Your task to perform on an android device: Show me popular videos on Youtube Image 0: 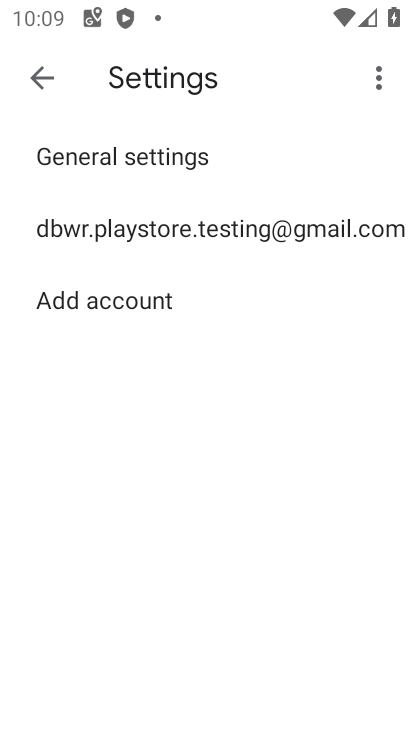
Step 0: press home button
Your task to perform on an android device: Show me popular videos on Youtube Image 1: 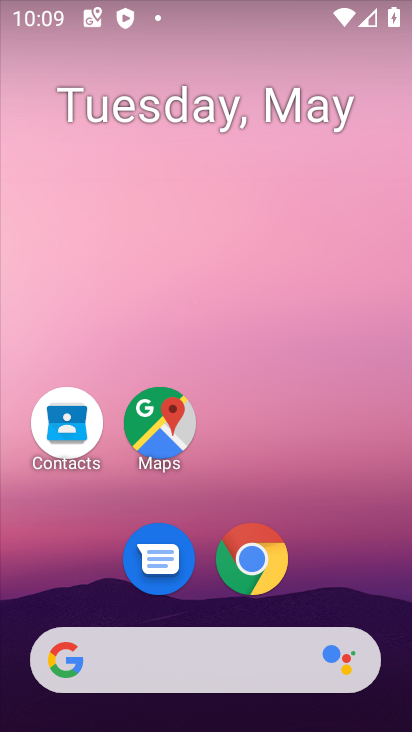
Step 1: drag from (371, 578) to (365, 114)
Your task to perform on an android device: Show me popular videos on Youtube Image 2: 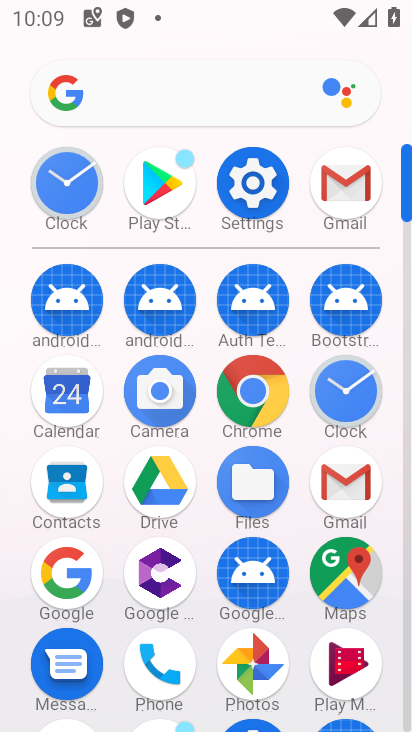
Step 2: click (403, 726)
Your task to perform on an android device: Show me popular videos on Youtube Image 3: 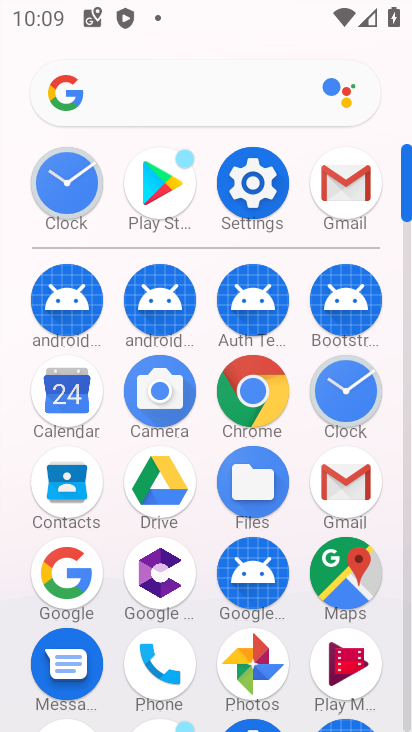
Step 3: click (403, 726)
Your task to perform on an android device: Show me popular videos on Youtube Image 4: 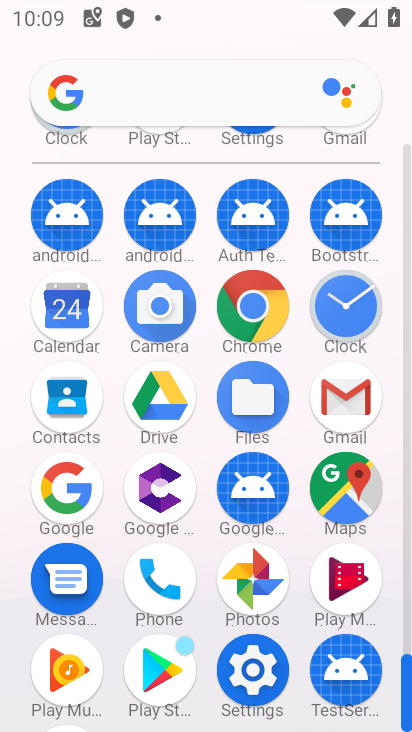
Step 4: click (402, 697)
Your task to perform on an android device: Show me popular videos on Youtube Image 5: 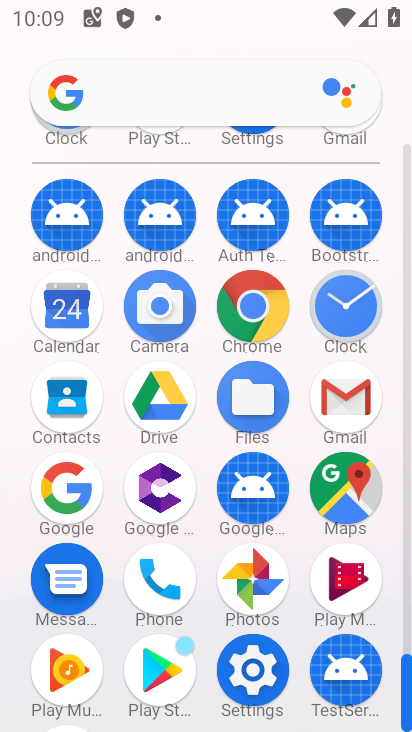
Step 5: drag from (402, 697) to (222, 719)
Your task to perform on an android device: Show me popular videos on Youtube Image 6: 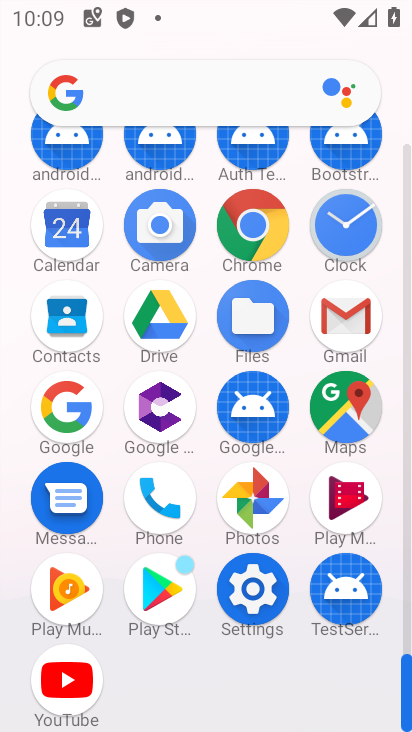
Step 6: click (69, 647)
Your task to perform on an android device: Show me popular videos on Youtube Image 7: 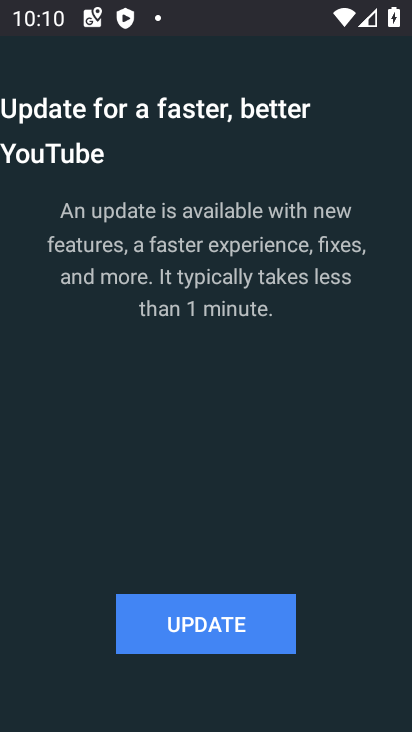
Step 7: click (251, 618)
Your task to perform on an android device: Show me popular videos on Youtube Image 8: 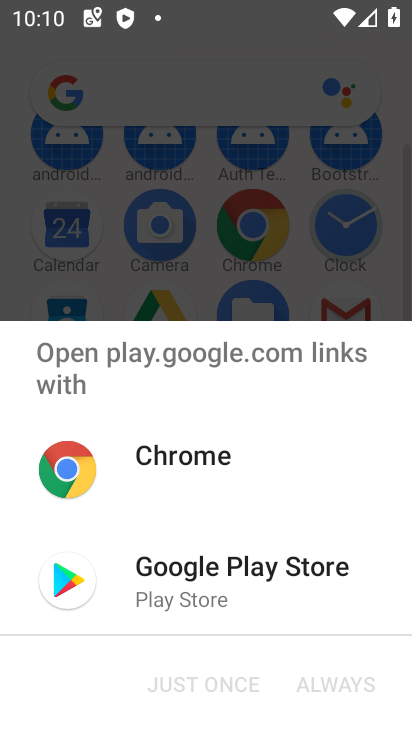
Step 8: click (149, 677)
Your task to perform on an android device: Show me popular videos on Youtube Image 9: 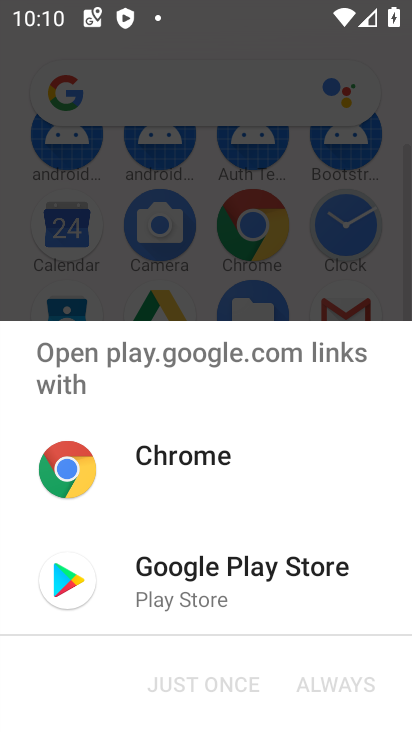
Step 9: click (83, 601)
Your task to perform on an android device: Show me popular videos on Youtube Image 10: 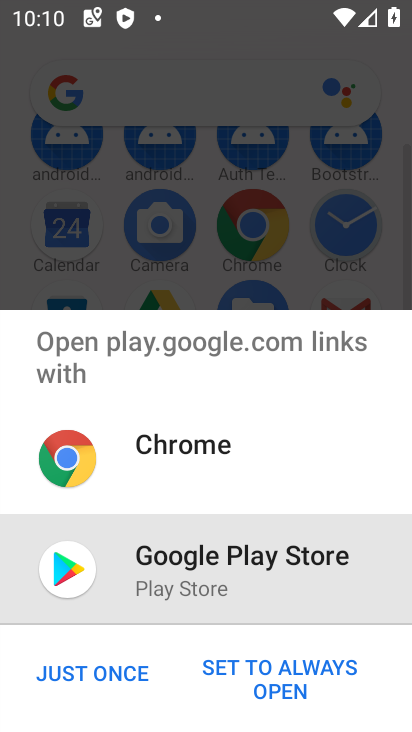
Step 10: click (33, 680)
Your task to perform on an android device: Show me popular videos on Youtube Image 11: 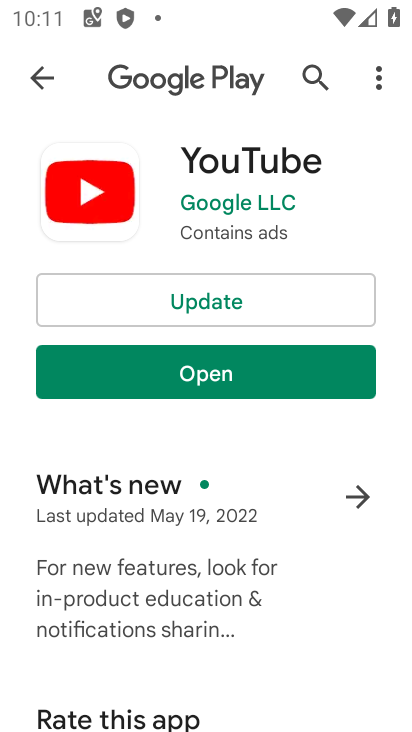
Step 11: click (234, 283)
Your task to perform on an android device: Show me popular videos on Youtube Image 12: 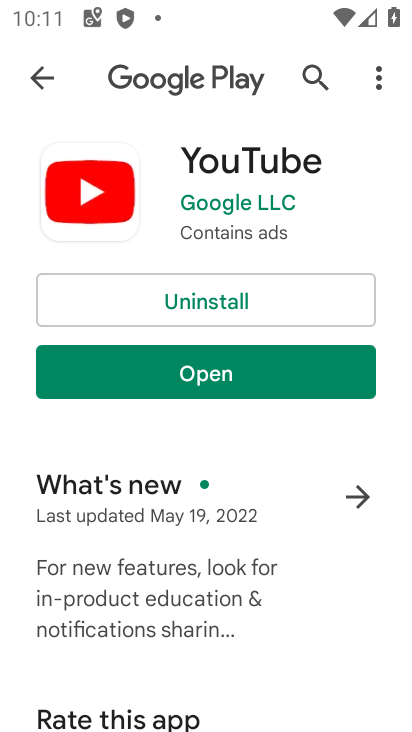
Step 12: click (188, 369)
Your task to perform on an android device: Show me popular videos on Youtube Image 13: 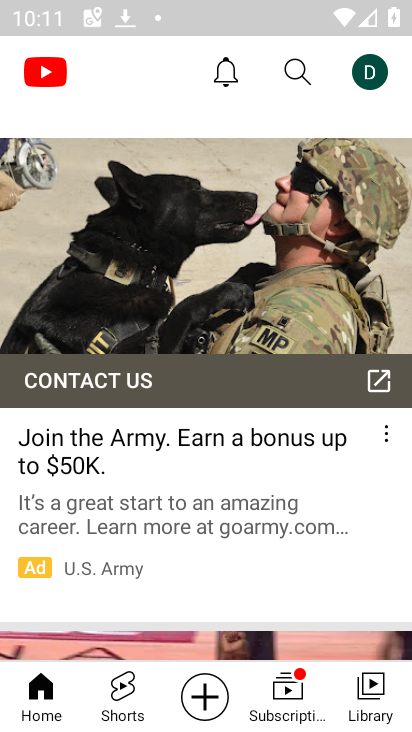
Step 13: task complete